Your task to perform on an android device: change notification settings in the gmail app Image 0: 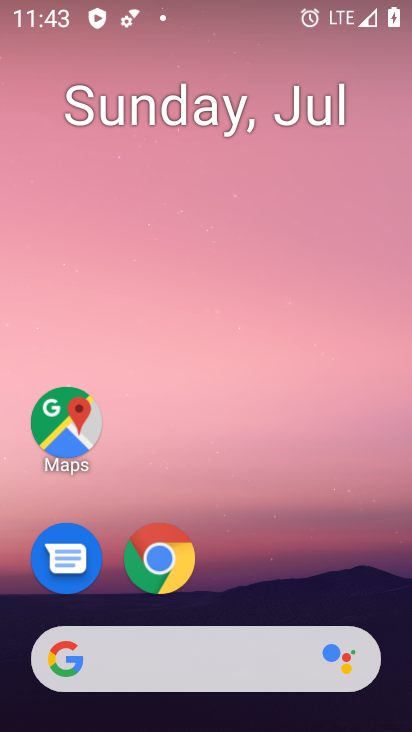
Step 0: drag from (239, 593) to (238, 17)
Your task to perform on an android device: change notification settings in the gmail app Image 1: 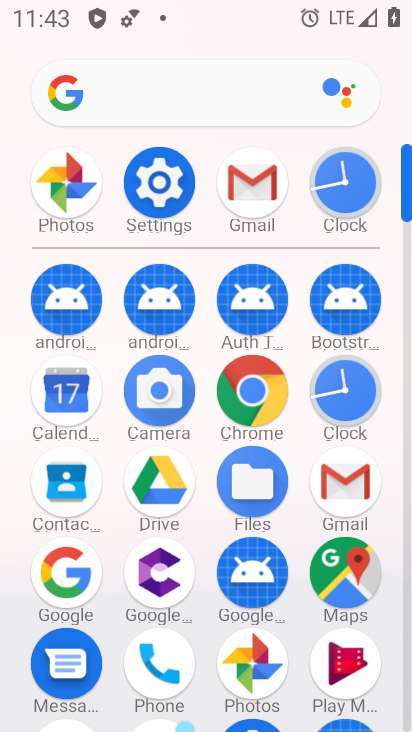
Step 1: click (250, 184)
Your task to perform on an android device: change notification settings in the gmail app Image 2: 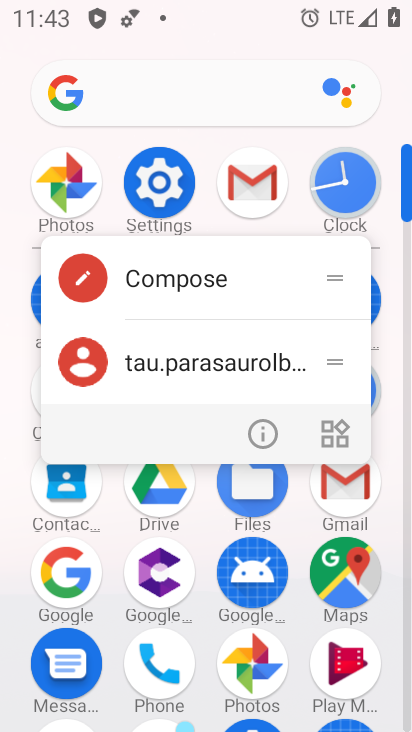
Step 2: click (261, 434)
Your task to perform on an android device: change notification settings in the gmail app Image 3: 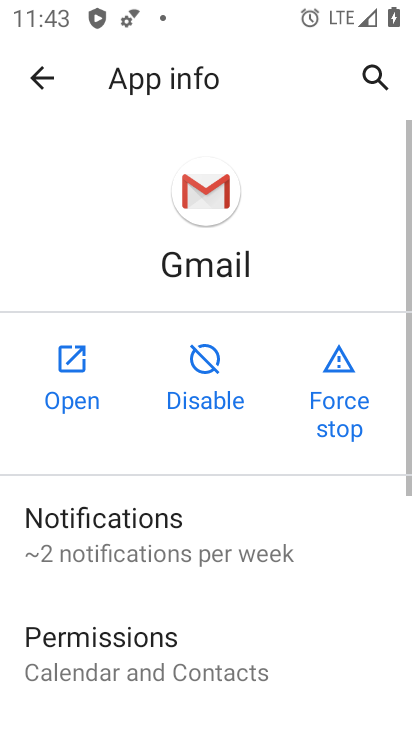
Step 3: click (154, 535)
Your task to perform on an android device: change notification settings in the gmail app Image 4: 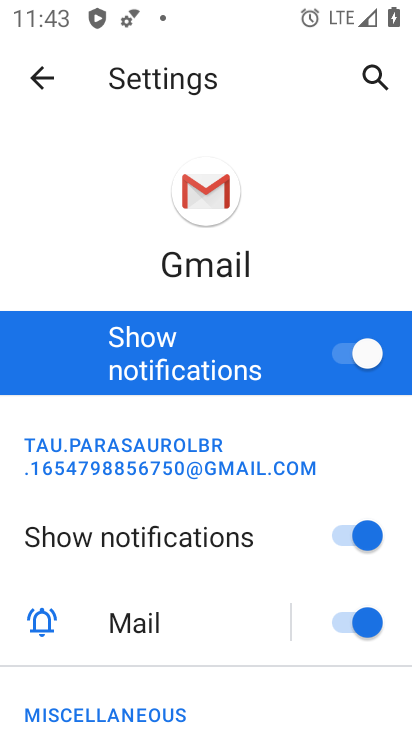
Step 4: click (373, 533)
Your task to perform on an android device: change notification settings in the gmail app Image 5: 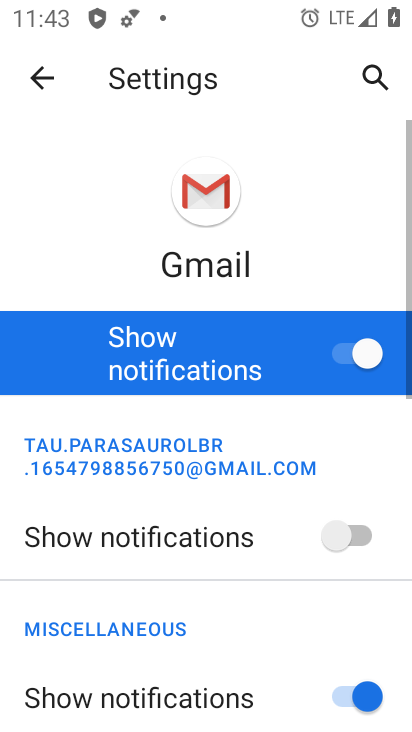
Step 5: task complete